Your task to perform on an android device: Open the map Image 0: 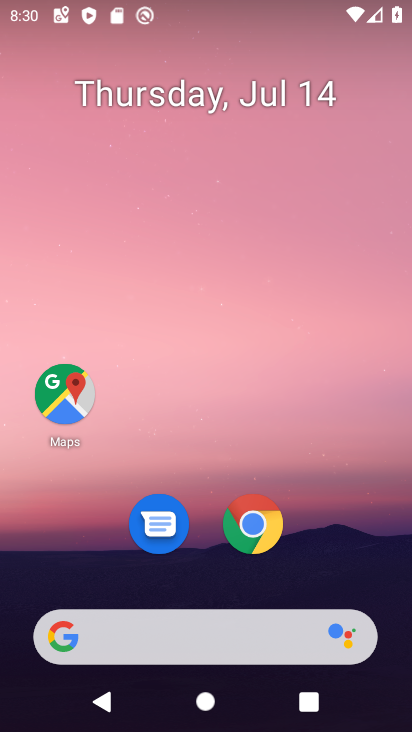
Step 0: click (70, 398)
Your task to perform on an android device: Open the map Image 1: 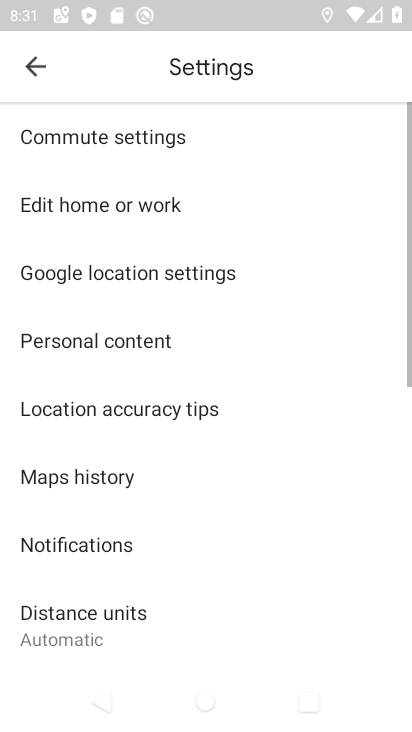
Step 1: click (32, 62)
Your task to perform on an android device: Open the map Image 2: 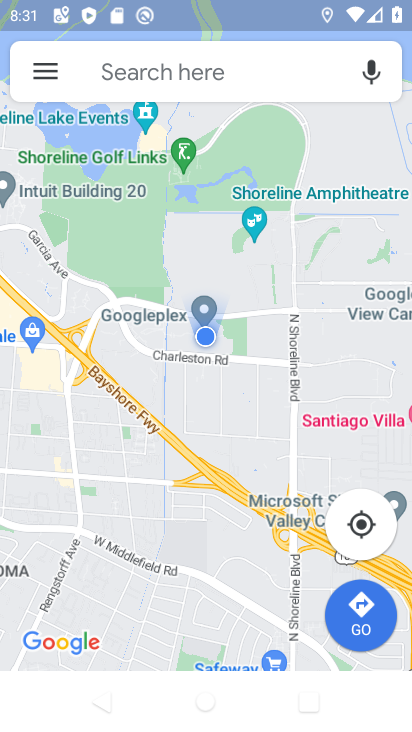
Step 2: task complete